Your task to perform on an android device: change the clock style Image 0: 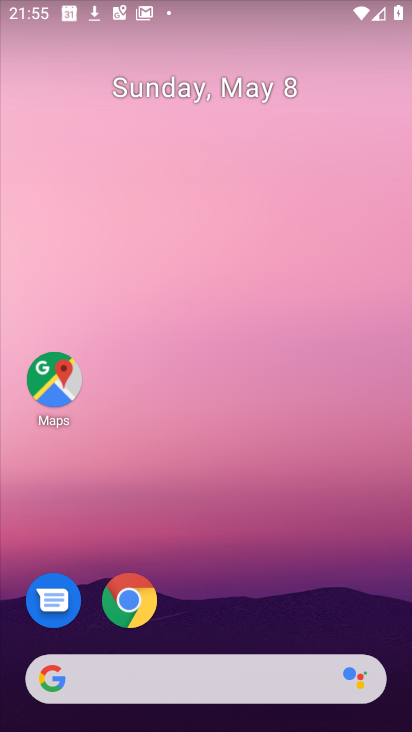
Step 0: drag from (242, 710) to (264, 181)
Your task to perform on an android device: change the clock style Image 1: 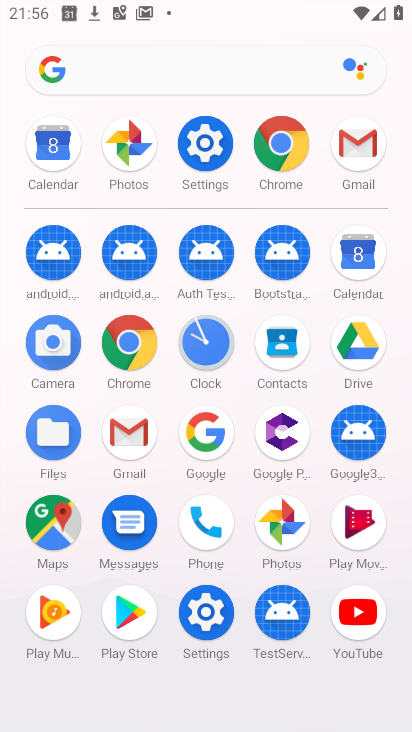
Step 1: click (208, 347)
Your task to perform on an android device: change the clock style Image 2: 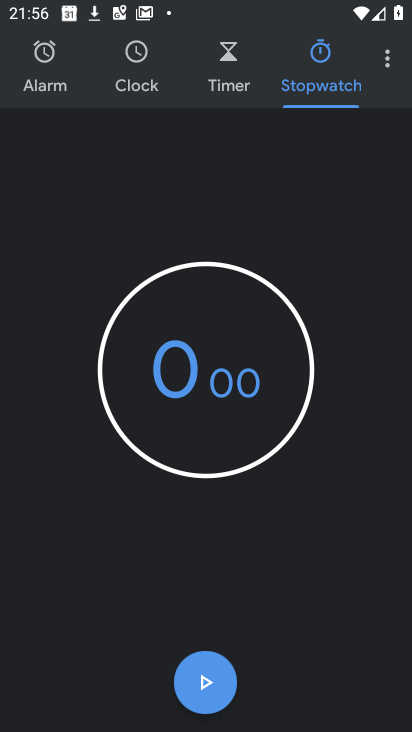
Step 2: click (384, 62)
Your task to perform on an android device: change the clock style Image 3: 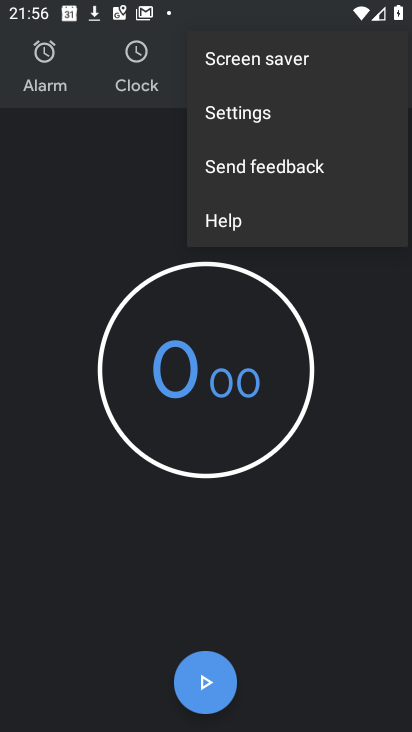
Step 3: click (280, 129)
Your task to perform on an android device: change the clock style Image 4: 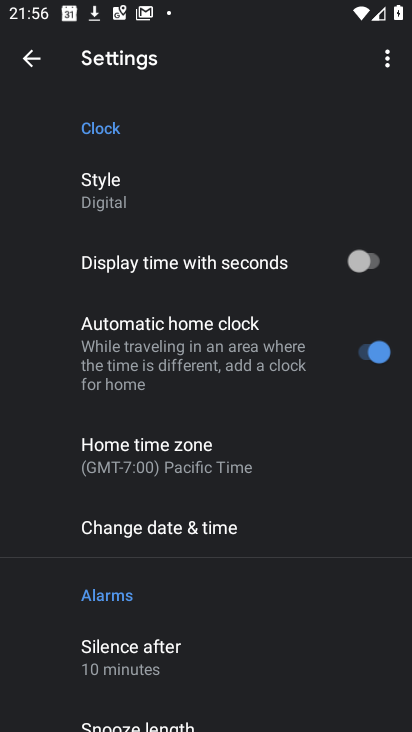
Step 4: click (112, 185)
Your task to perform on an android device: change the clock style Image 5: 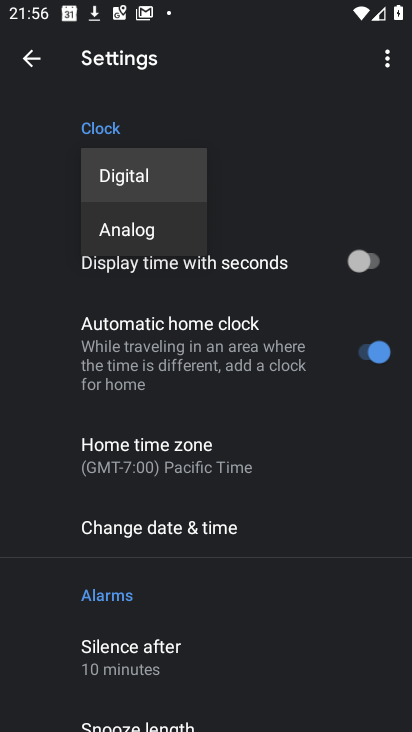
Step 5: task complete